Your task to perform on an android device: Go to location settings Image 0: 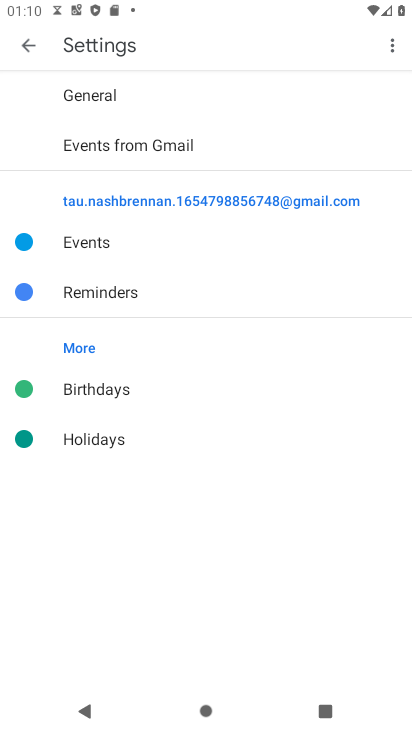
Step 0: press back button
Your task to perform on an android device: Go to location settings Image 1: 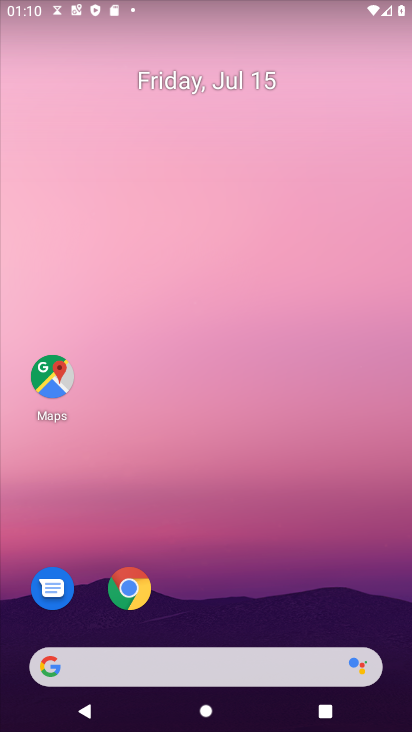
Step 1: drag from (198, 617) to (282, 0)
Your task to perform on an android device: Go to location settings Image 2: 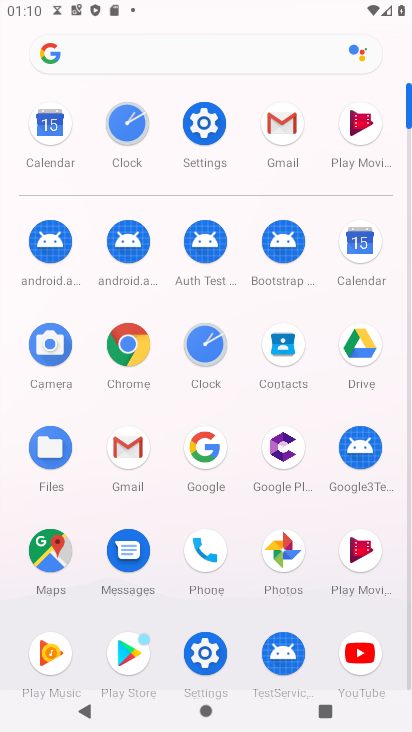
Step 2: click (212, 111)
Your task to perform on an android device: Go to location settings Image 3: 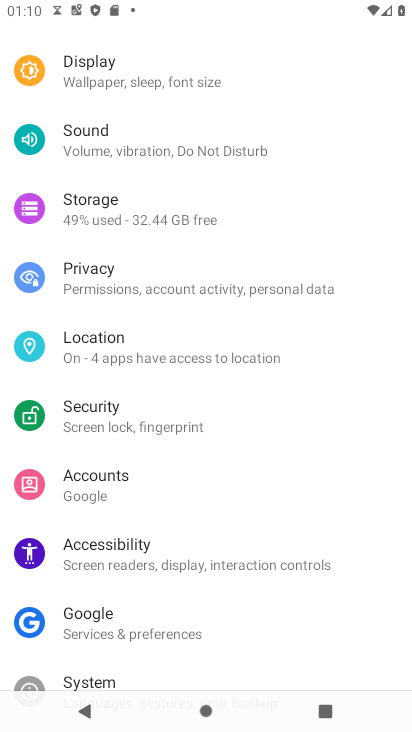
Step 3: click (117, 336)
Your task to perform on an android device: Go to location settings Image 4: 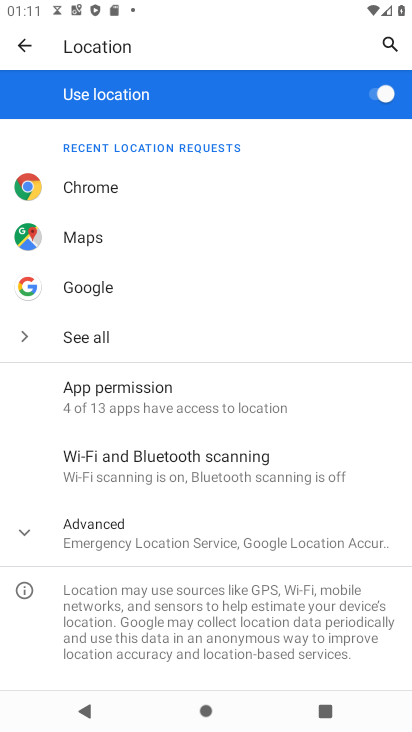
Step 4: task complete